Your task to perform on an android device: turn pop-ups on in chrome Image 0: 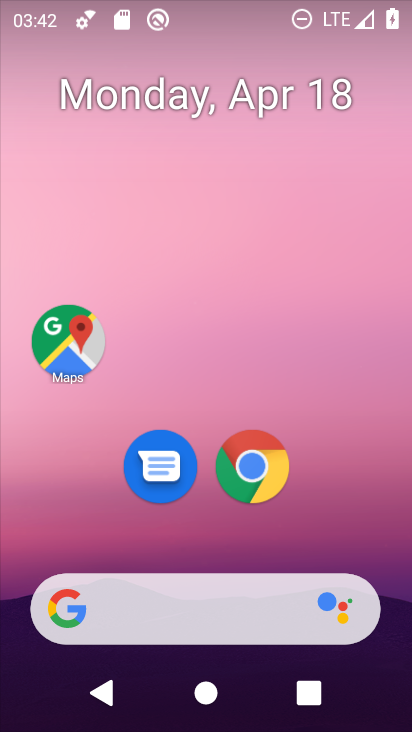
Step 0: click (243, 451)
Your task to perform on an android device: turn pop-ups on in chrome Image 1: 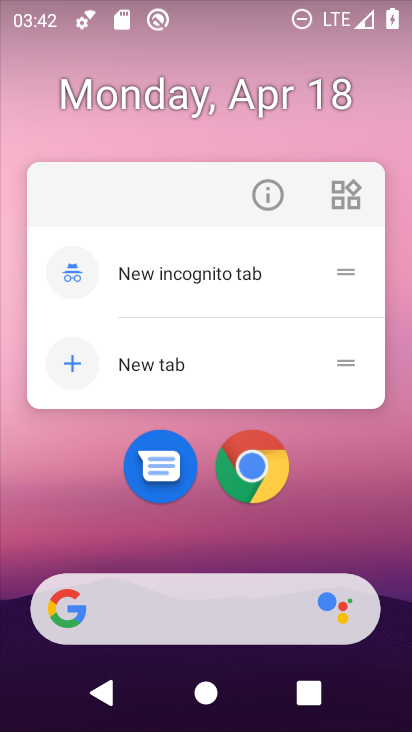
Step 1: click (243, 451)
Your task to perform on an android device: turn pop-ups on in chrome Image 2: 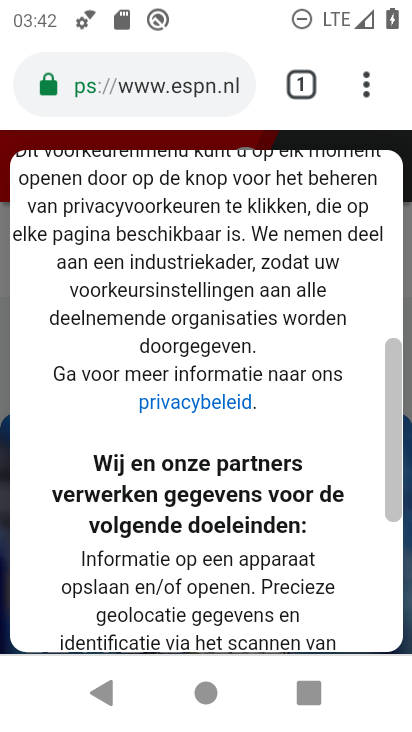
Step 2: click (368, 101)
Your task to perform on an android device: turn pop-ups on in chrome Image 3: 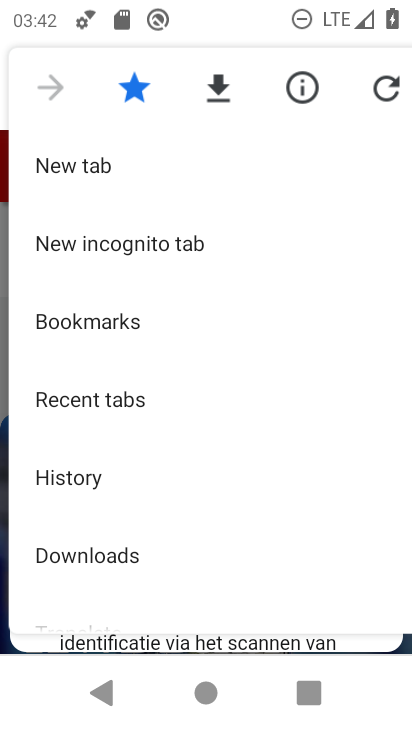
Step 3: drag from (235, 537) to (300, 249)
Your task to perform on an android device: turn pop-ups on in chrome Image 4: 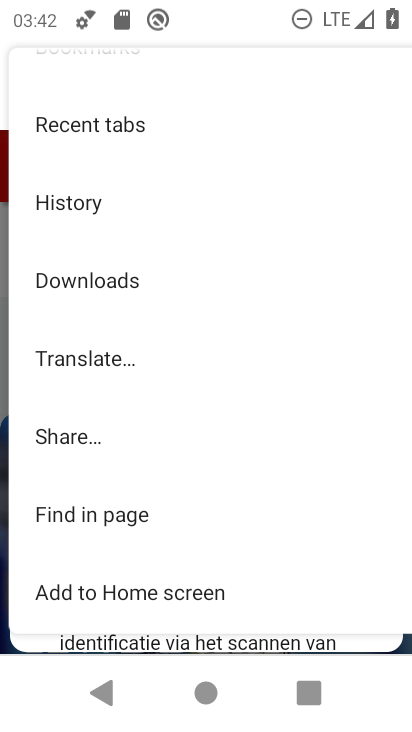
Step 4: drag from (210, 528) to (284, 263)
Your task to perform on an android device: turn pop-ups on in chrome Image 5: 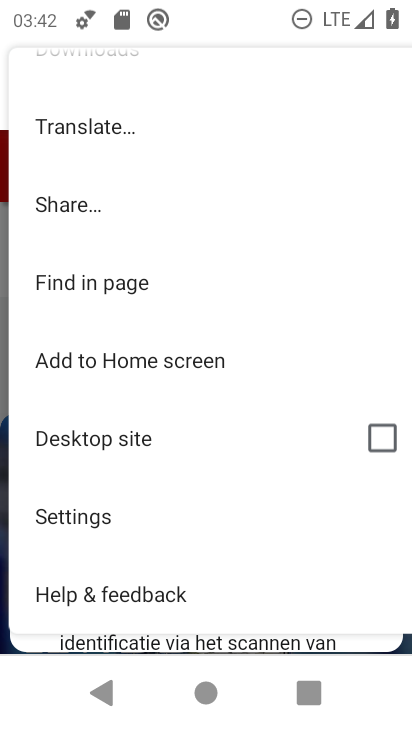
Step 5: click (226, 495)
Your task to perform on an android device: turn pop-ups on in chrome Image 6: 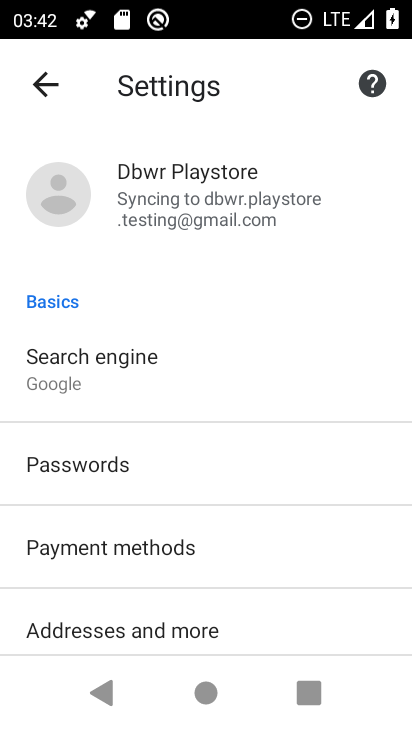
Step 6: drag from (253, 506) to (285, 234)
Your task to perform on an android device: turn pop-ups on in chrome Image 7: 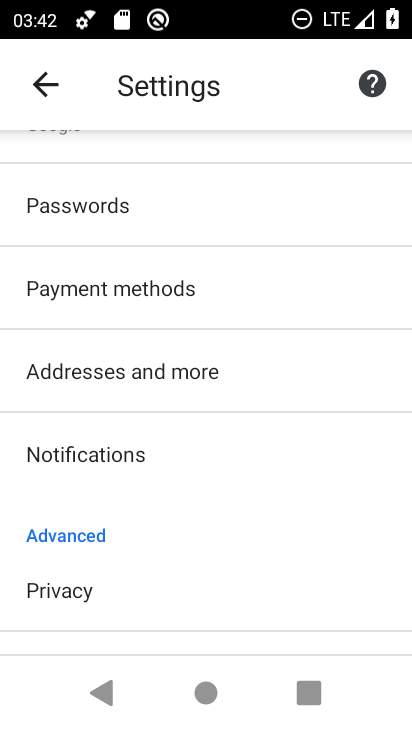
Step 7: drag from (246, 551) to (284, 273)
Your task to perform on an android device: turn pop-ups on in chrome Image 8: 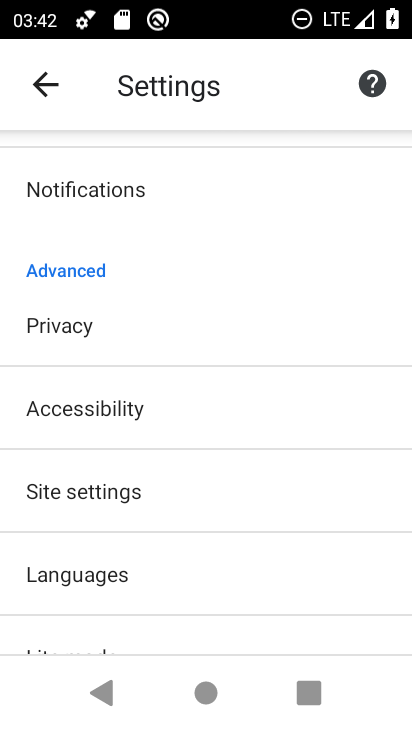
Step 8: click (258, 497)
Your task to perform on an android device: turn pop-ups on in chrome Image 9: 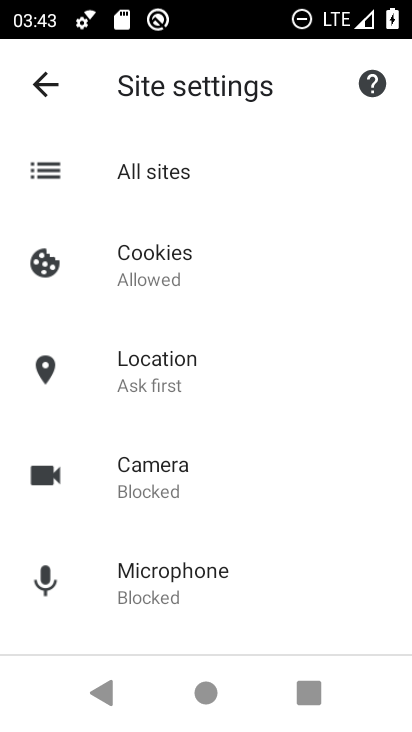
Step 9: drag from (244, 567) to (271, 300)
Your task to perform on an android device: turn pop-ups on in chrome Image 10: 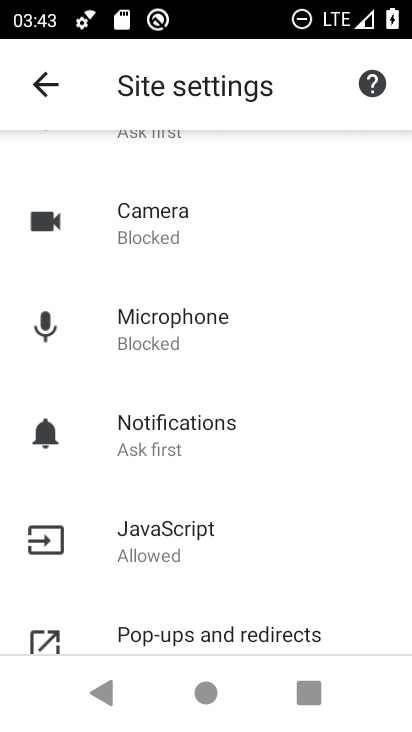
Step 10: click (246, 622)
Your task to perform on an android device: turn pop-ups on in chrome Image 11: 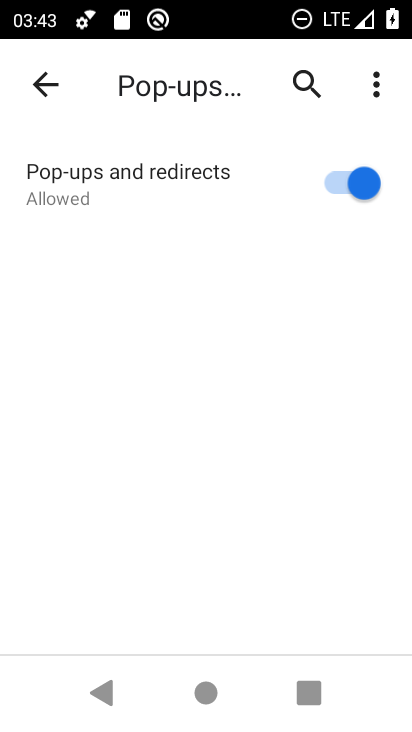
Step 11: click (337, 174)
Your task to perform on an android device: turn pop-ups on in chrome Image 12: 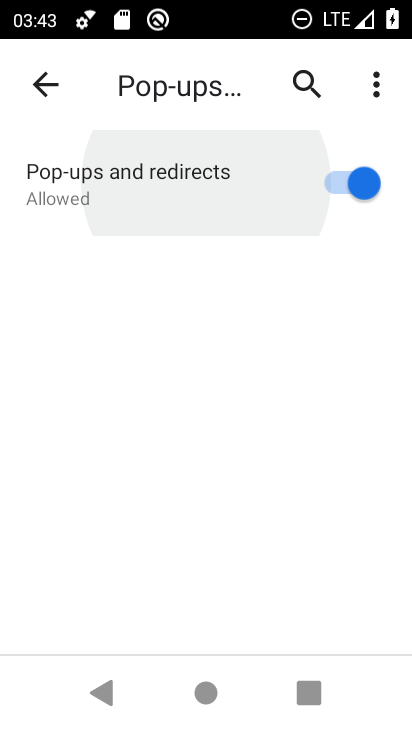
Step 12: click (337, 174)
Your task to perform on an android device: turn pop-ups on in chrome Image 13: 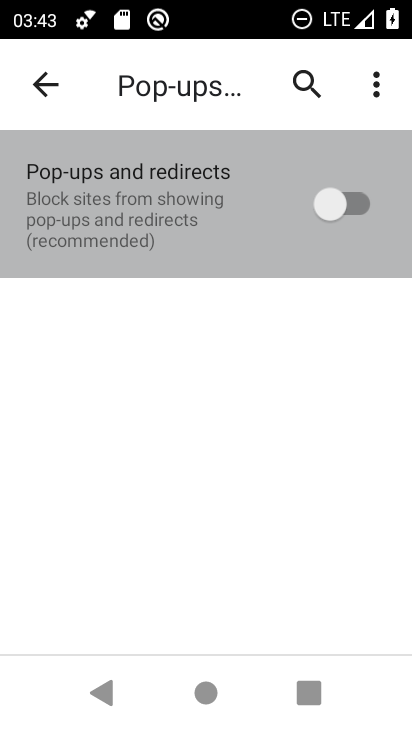
Step 13: click (337, 174)
Your task to perform on an android device: turn pop-ups on in chrome Image 14: 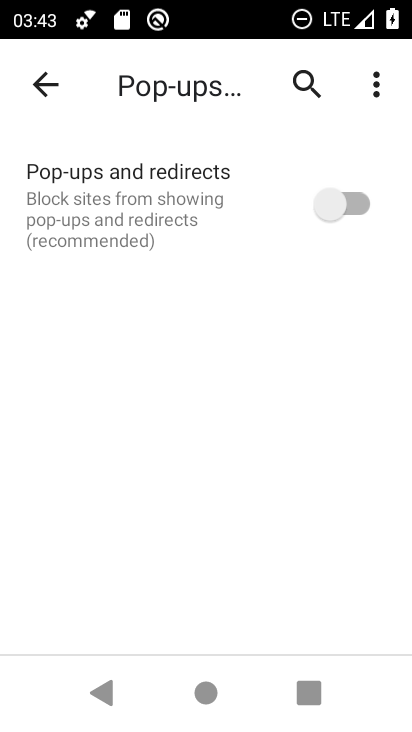
Step 14: task complete